Your task to perform on an android device: turn on sleep mode Image 0: 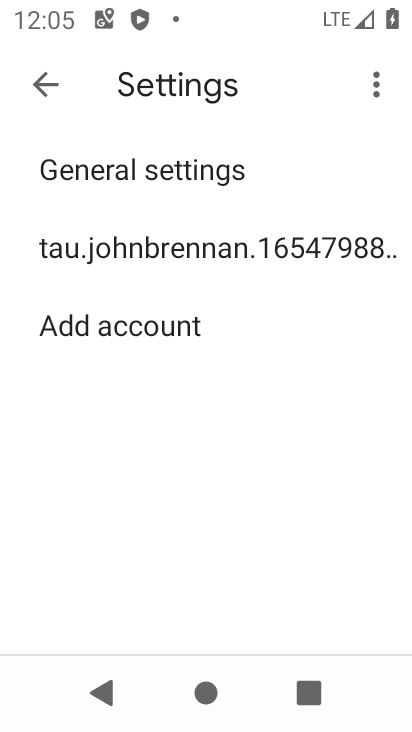
Step 0: press home button
Your task to perform on an android device: turn on sleep mode Image 1: 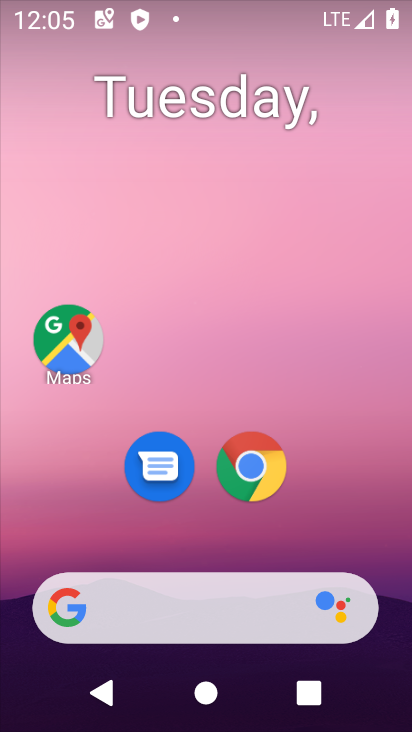
Step 1: drag from (265, 472) to (272, 55)
Your task to perform on an android device: turn on sleep mode Image 2: 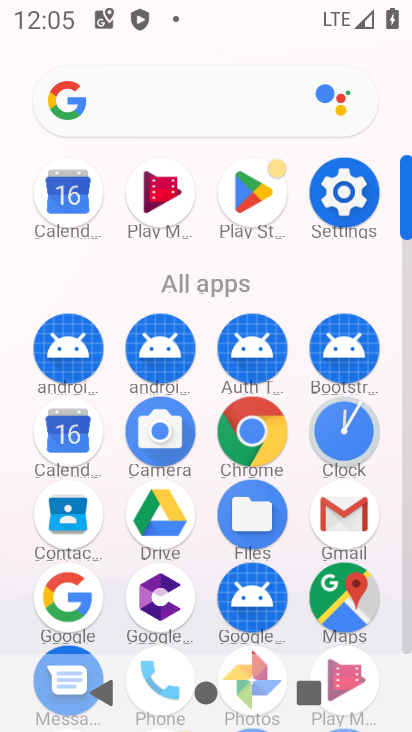
Step 2: click (342, 180)
Your task to perform on an android device: turn on sleep mode Image 3: 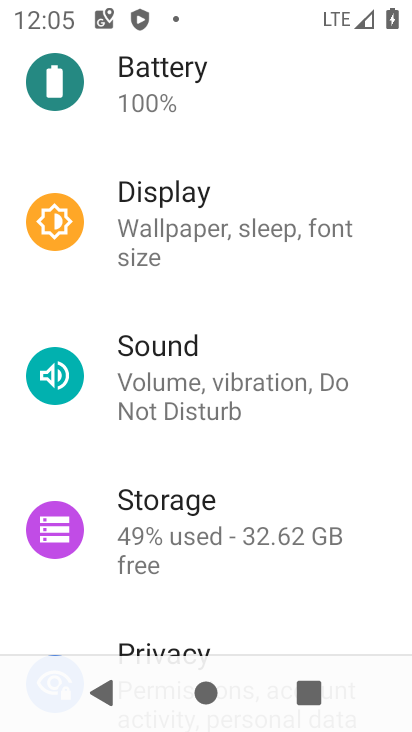
Step 3: task complete